Your task to perform on an android device: Show me productivity apps on the Play Store Image 0: 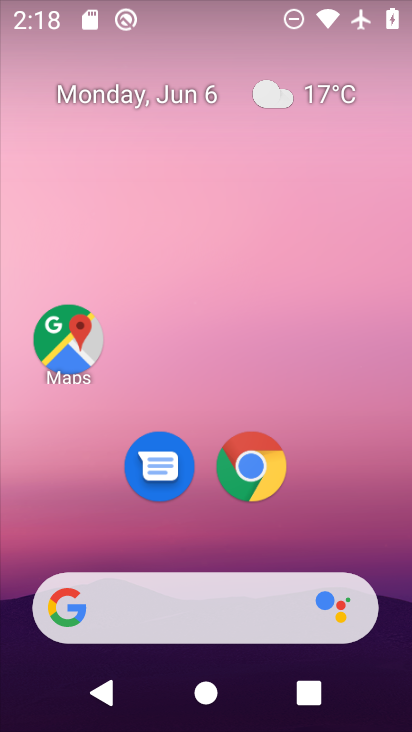
Step 0: drag from (400, 353) to (394, 133)
Your task to perform on an android device: Show me productivity apps on the Play Store Image 1: 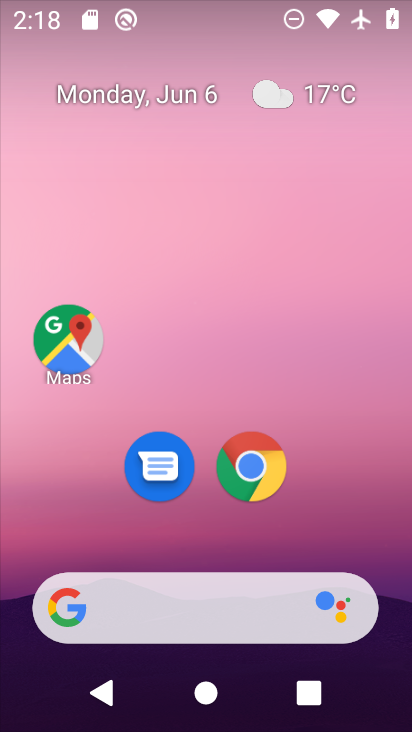
Step 1: drag from (350, 538) to (364, 144)
Your task to perform on an android device: Show me productivity apps on the Play Store Image 2: 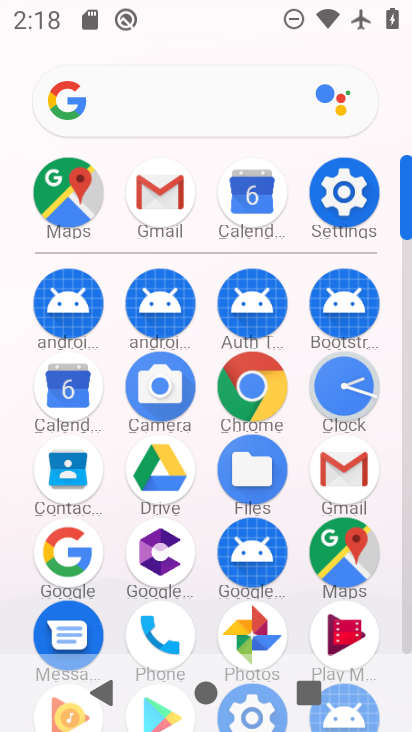
Step 2: drag from (196, 594) to (259, 239)
Your task to perform on an android device: Show me productivity apps on the Play Store Image 3: 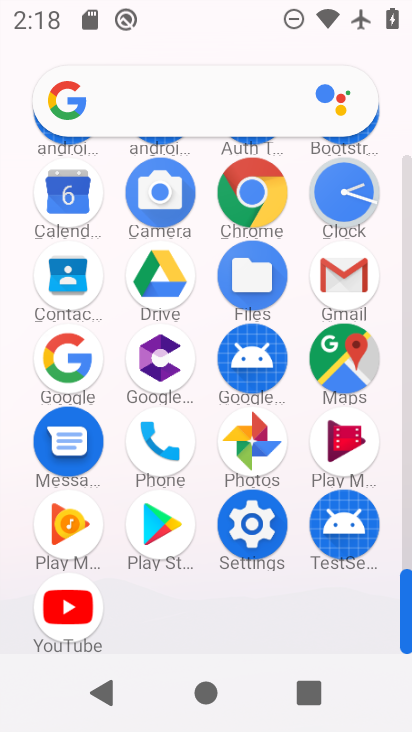
Step 3: click (163, 527)
Your task to perform on an android device: Show me productivity apps on the Play Store Image 4: 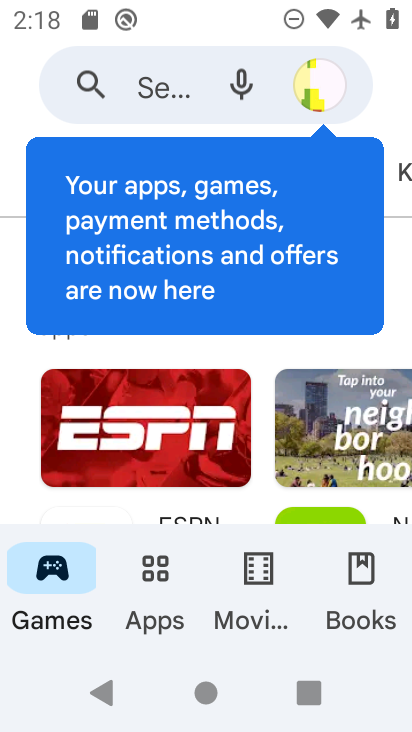
Step 4: drag from (18, 273) to (24, 664)
Your task to perform on an android device: Show me productivity apps on the Play Store Image 5: 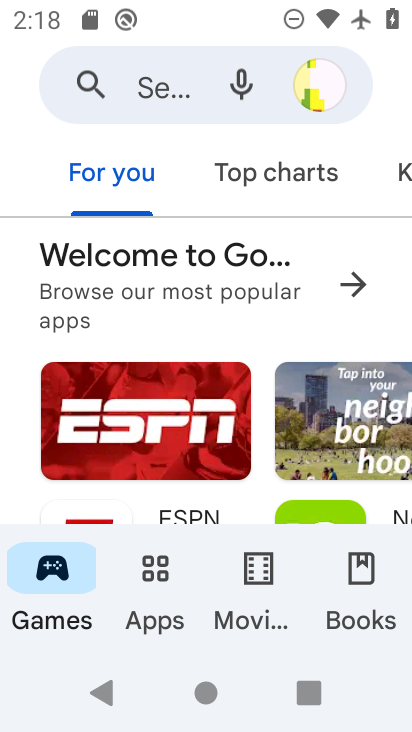
Step 5: drag from (34, 238) to (41, 483)
Your task to perform on an android device: Show me productivity apps on the Play Store Image 6: 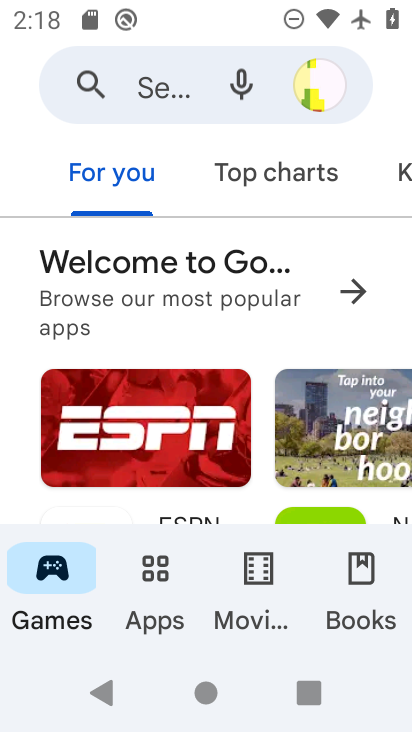
Step 6: drag from (45, 270) to (49, 416)
Your task to perform on an android device: Show me productivity apps on the Play Store Image 7: 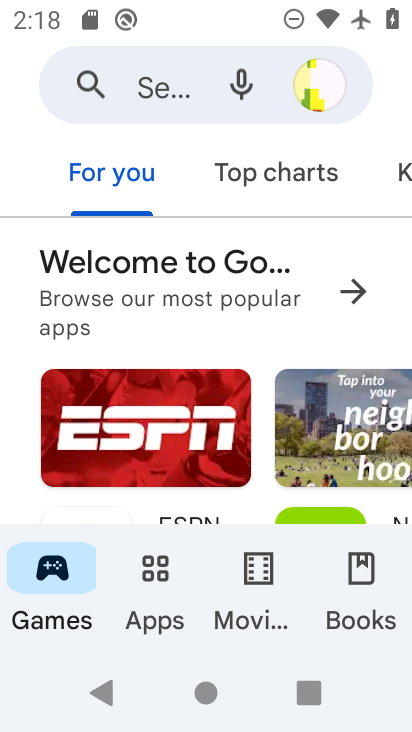
Step 7: click (153, 571)
Your task to perform on an android device: Show me productivity apps on the Play Store Image 8: 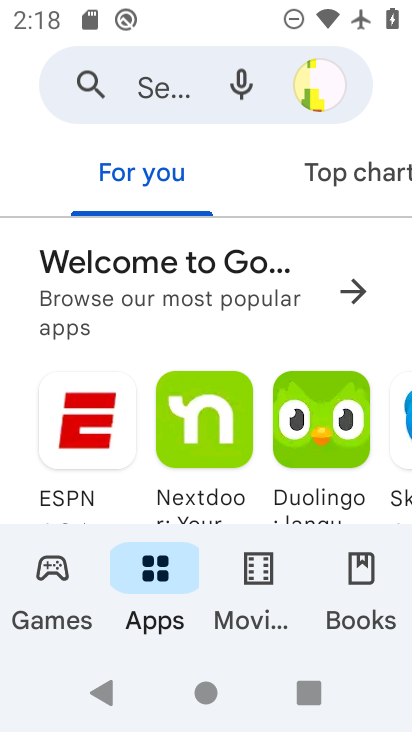
Step 8: drag from (367, 178) to (34, 181)
Your task to perform on an android device: Show me productivity apps on the Play Store Image 9: 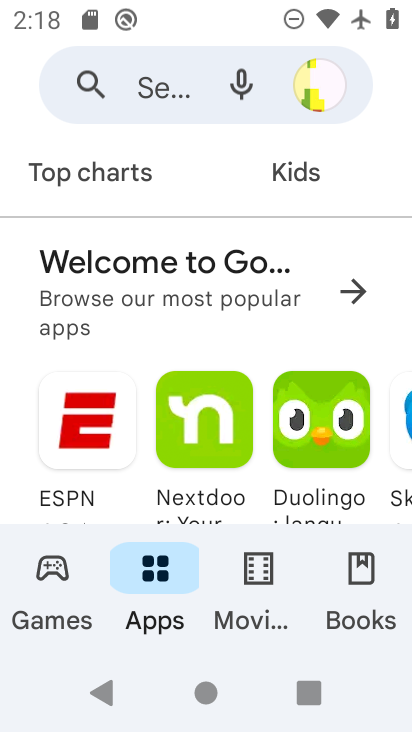
Step 9: drag from (343, 185) to (2, 182)
Your task to perform on an android device: Show me productivity apps on the Play Store Image 10: 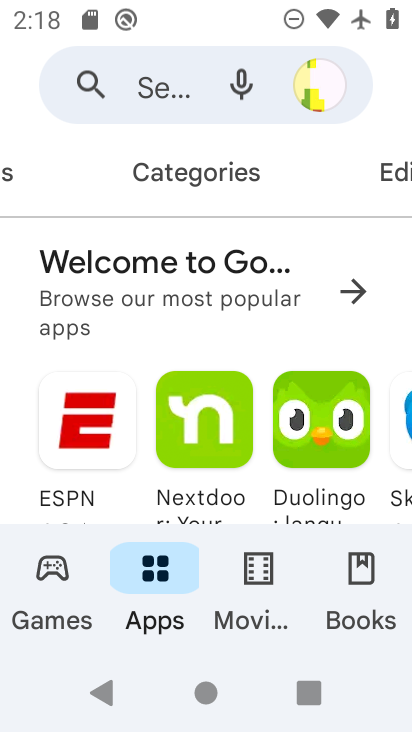
Step 10: click (173, 175)
Your task to perform on an android device: Show me productivity apps on the Play Store Image 11: 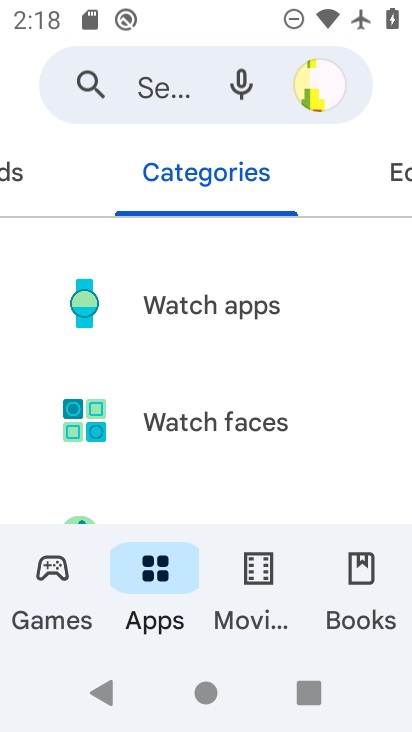
Step 11: drag from (311, 480) to (285, 35)
Your task to perform on an android device: Show me productivity apps on the Play Store Image 12: 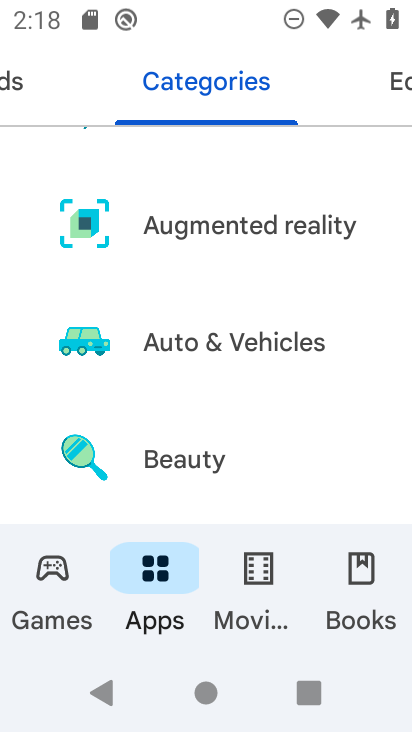
Step 12: drag from (321, 450) to (343, 65)
Your task to perform on an android device: Show me productivity apps on the Play Store Image 13: 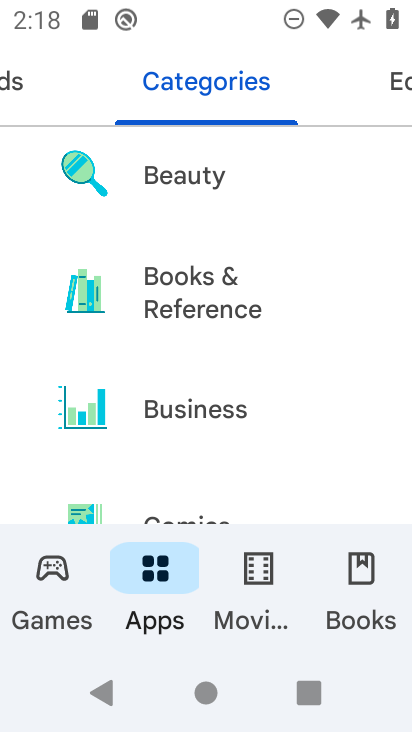
Step 13: drag from (302, 480) to (331, 60)
Your task to perform on an android device: Show me productivity apps on the Play Store Image 14: 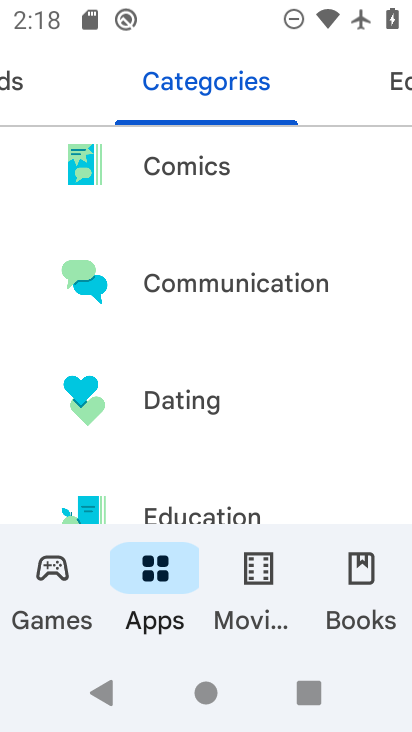
Step 14: drag from (325, 444) to (356, 113)
Your task to perform on an android device: Show me productivity apps on the Play Store Image 15: 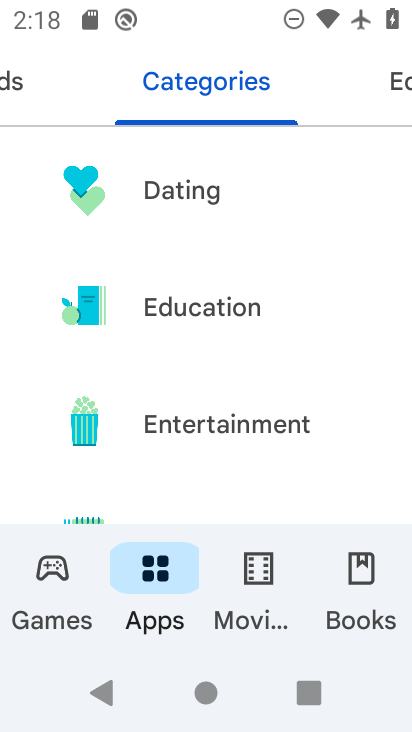
Step 15: drag from (276, 466) to (305, 118)
Your task to perform on an android device: Show me productivity apps on the Play Store Image 16: 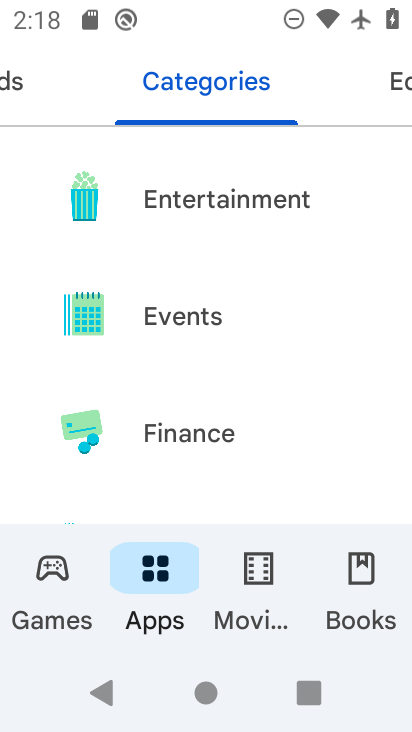
Step 16: drag from (260, 495) to (315, 125)
Your task to perform on an android device: Show me productivity apps on the Play Store Image 17: 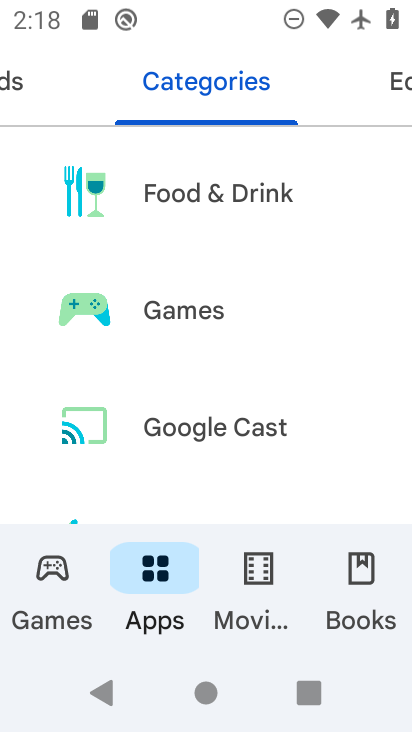
Step 17: drag from (296, 477) to (327, 113)
Your task to perform on an android device: Show me productivity apps on the Play Store Image 18: 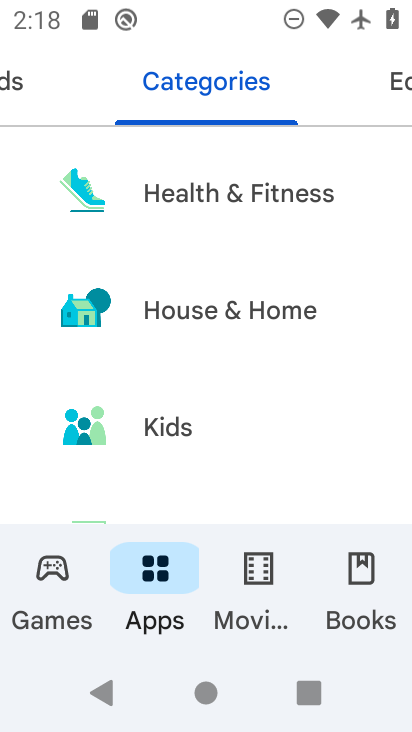
Step 18: drag from (301, 459) to (356, 109)
Your task to perform on an android device: Show me productivity apps on the Play Store Image 19: 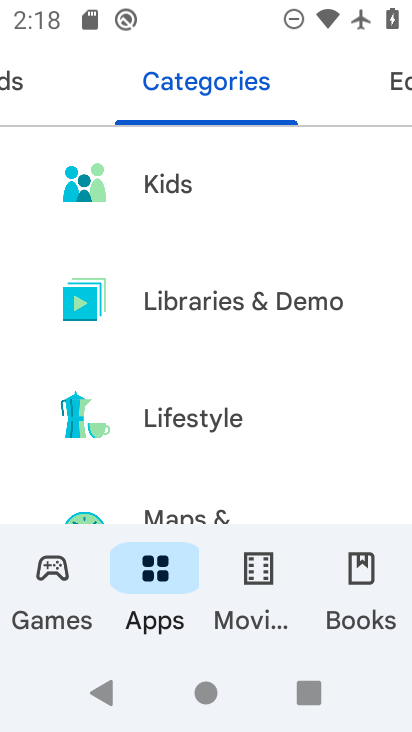
Step 19: drag from (295, 494) to (308, 137)
Your task to perform on an android device: Show me productivity apps on the Play Store Image 20: 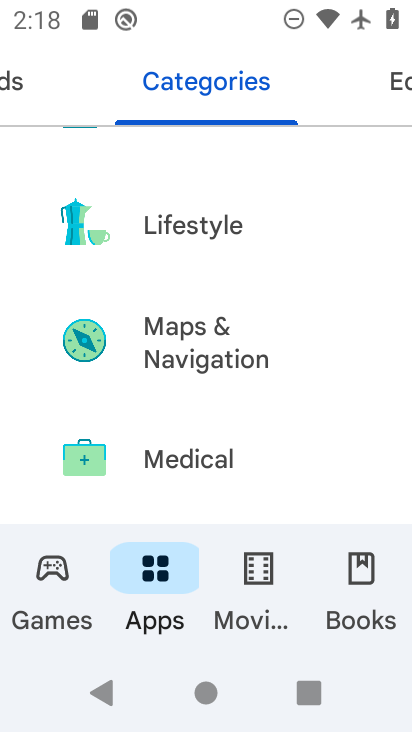
Step 20: drag from (292, 476) to (282, 123)
Your task to perform on an android device: Show me productivity apps on the Play Store Image 21: 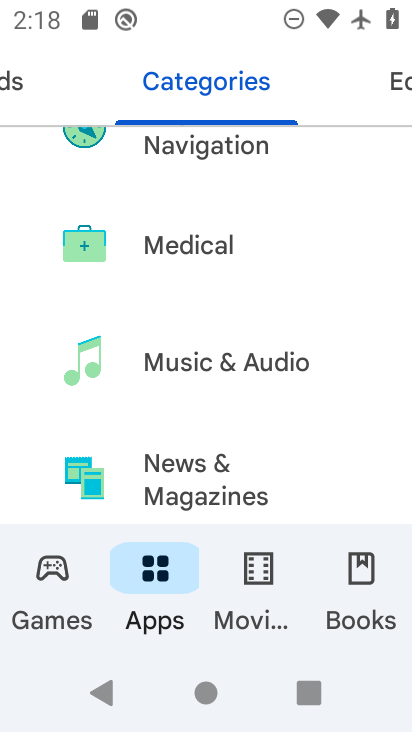
Step 21: drag from (283, 435) to (320, 100)
Your task to perform on an android device: Show me productivity apps on the Play Store Image 22: 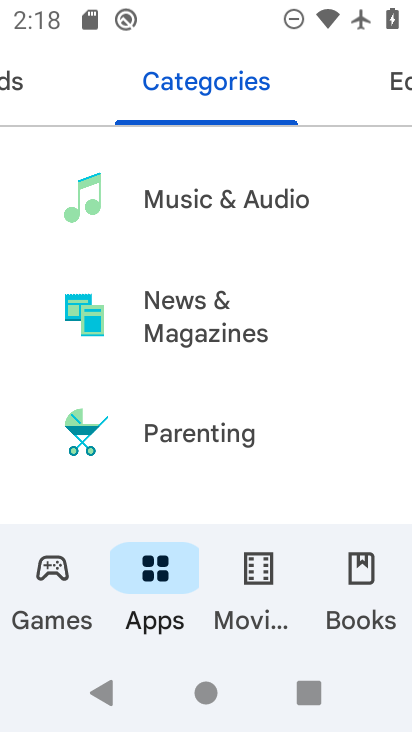
Step 22: drag from (320, 490) to (318, 113)
Your task to perform on an android device: Show me productivity apps on the Play Store Image 23: 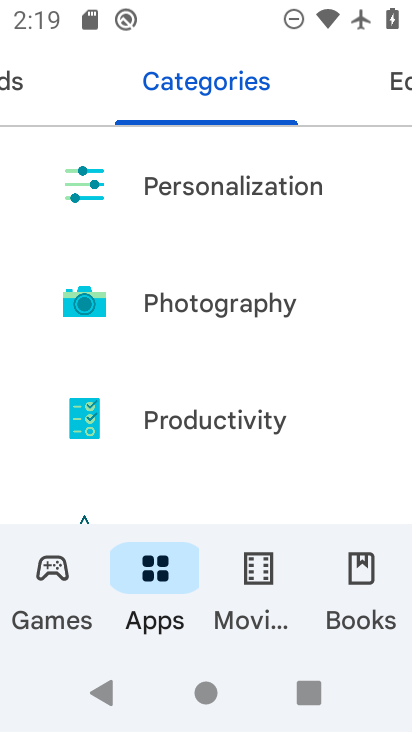
Step 23: click (264, 425)
Your task to perform on an android device: Show me productivity apps on the Play Store Image 24: 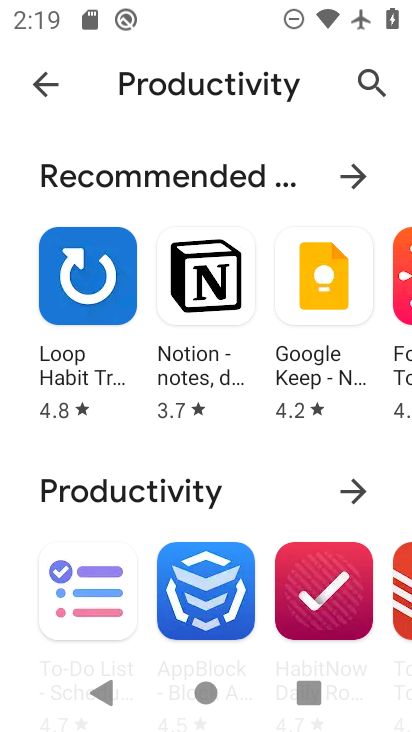
Step 24: task complete